Your task to perform on an android device: What's the weather going to be tomorrow? Image 0: 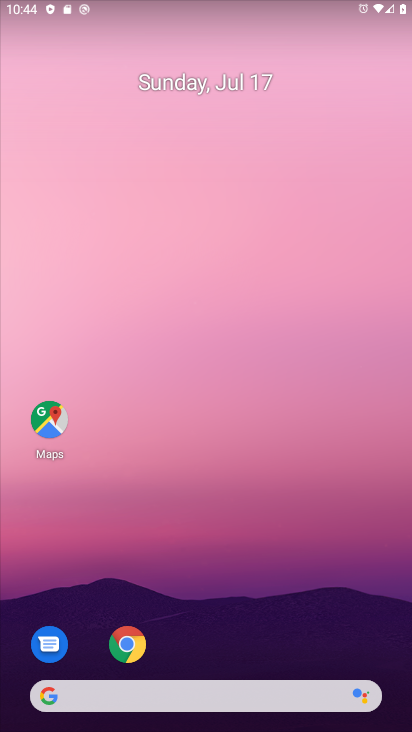
Step 0: drag from (283, 271) to (9, 661)
Your task to perform on an android device: What's the weather going to be tomorrow? Image 1: 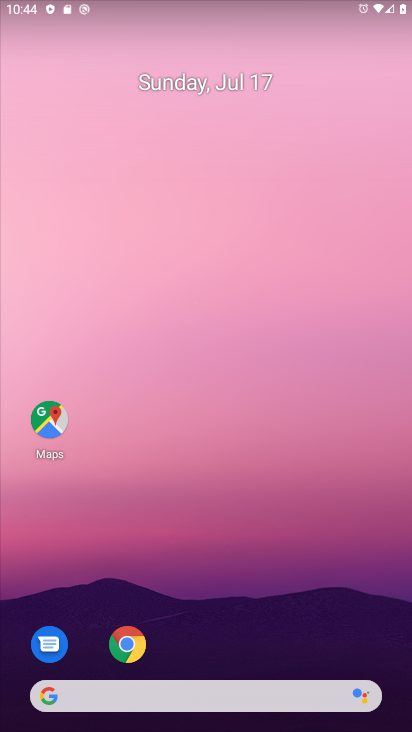
Step 1: drag from (319, 640) to (371, 119)
Your task to perform on an android device: What's the weather going to be tomorrow? Image 2: 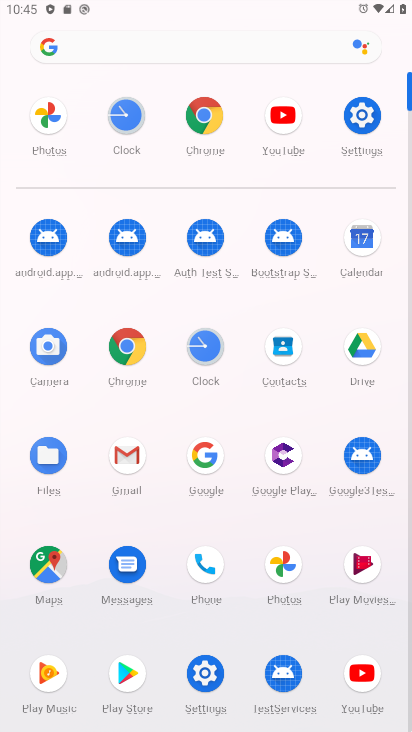
Step 2: click (218, 457)
Your task to perform on an android device: What's the weather going to be tomorrow? Image 3: 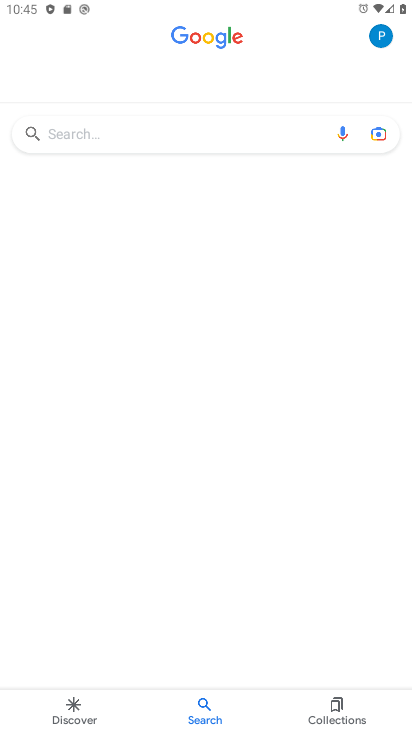
Step 3: click (118, 135)
Your task to perform on an android device: What's the weather going to be tomorrow? Image 4: 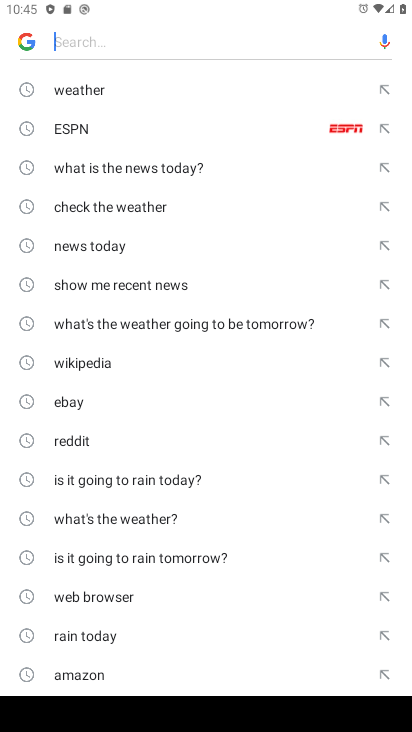
Step 4: click (66, 99)
Your task to perform on an android device: What's the weather going to be tomorrow? Image 5: 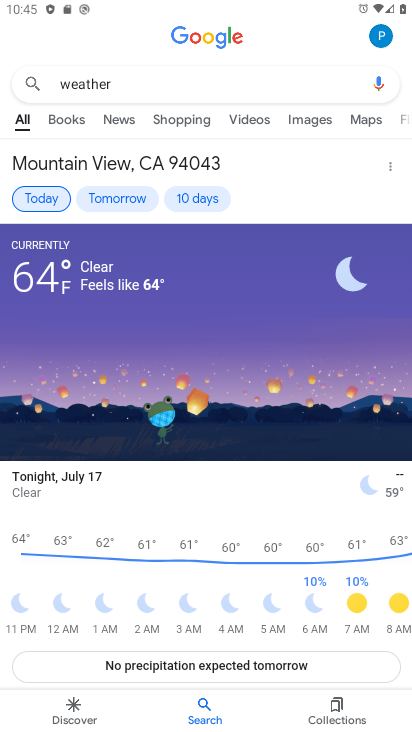
Step 5: task complete